Your task to perform on an android device: open device folders in google photos Image 0: 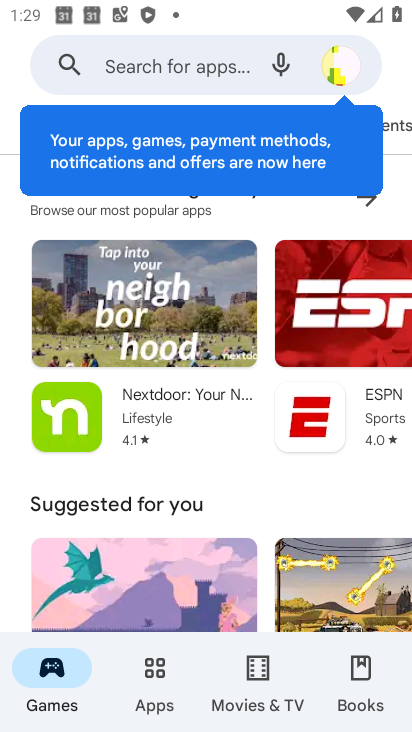
Step 0: press home button
Your task to perform on an android device: open device folders in google photos Image 1: 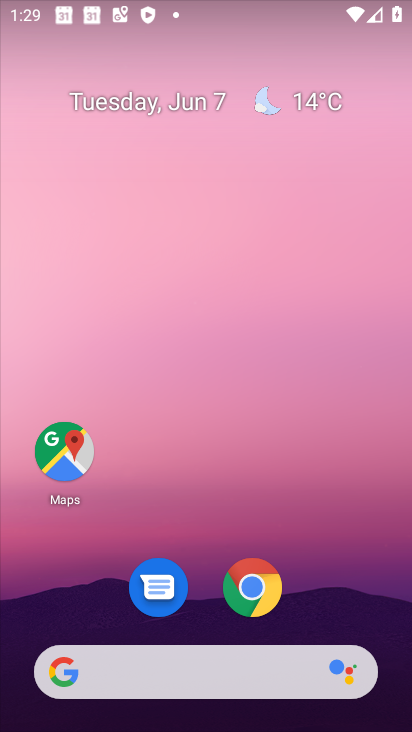
Step 1: drag from (309, 622) to (355, 134)
Your task to perform on an android device: open device folders in google photos Image 2: 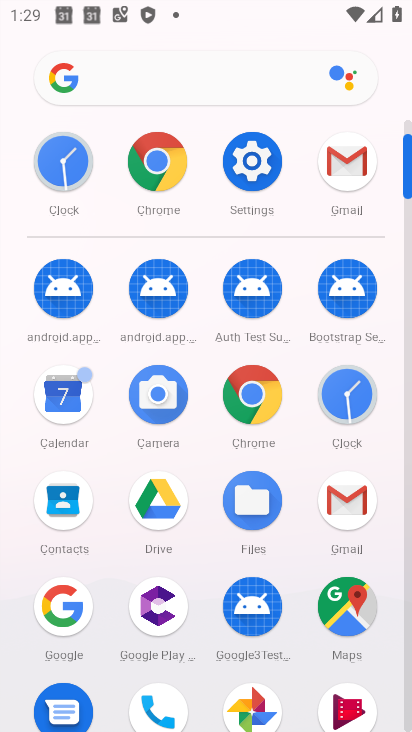
Step 2: click (408, 520)
Your task to perform on an android device: open device folders in google photos Image 3: 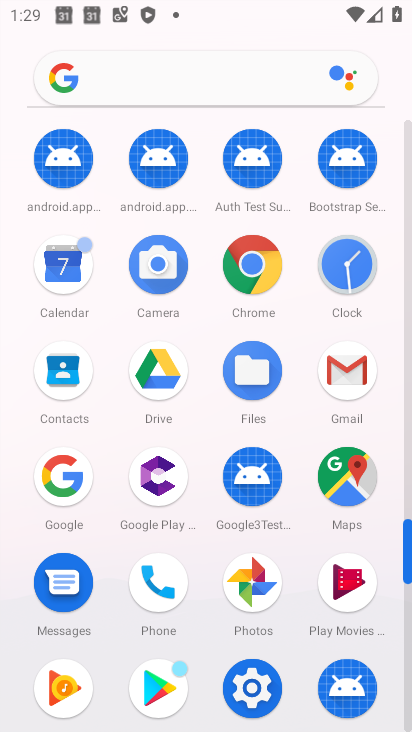
Step 3: click (246, 592)
Your task to perform on an android device: open device folders in google photos Image 4: 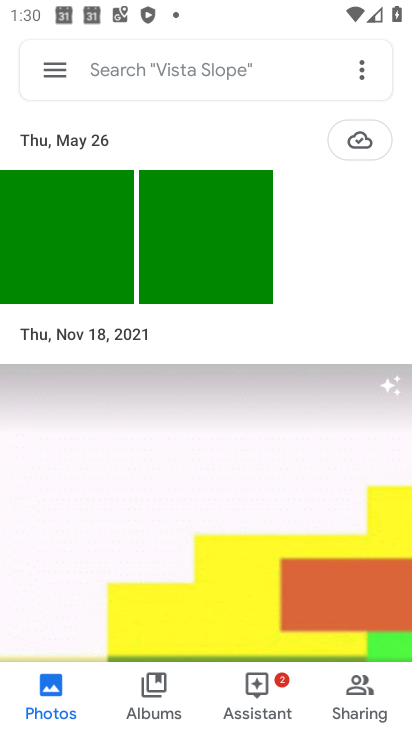
Step 4: click (63, 74)
Your task to perform on an android device: open device folders in google photos Image 5: 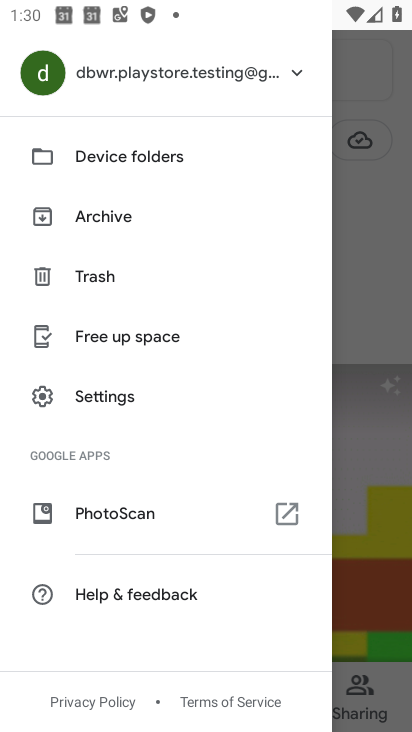
Step 5: click (107, 170)
Your task to perform on an android device: open device folders in google photos Image 6: 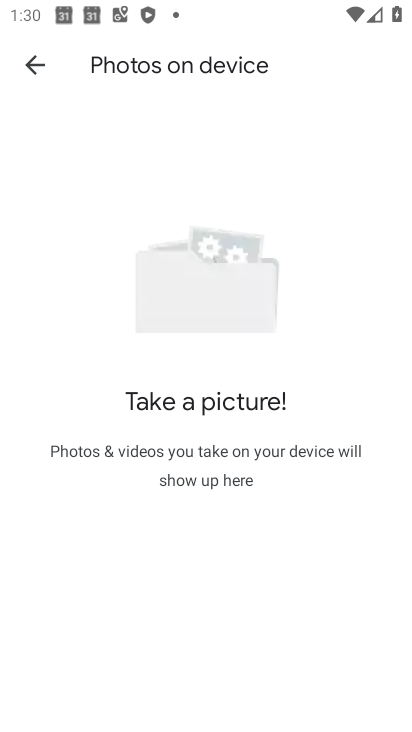
Step 6: task complete